Your task to perform on an android device: open app "Yahoo Mail" Image 0: 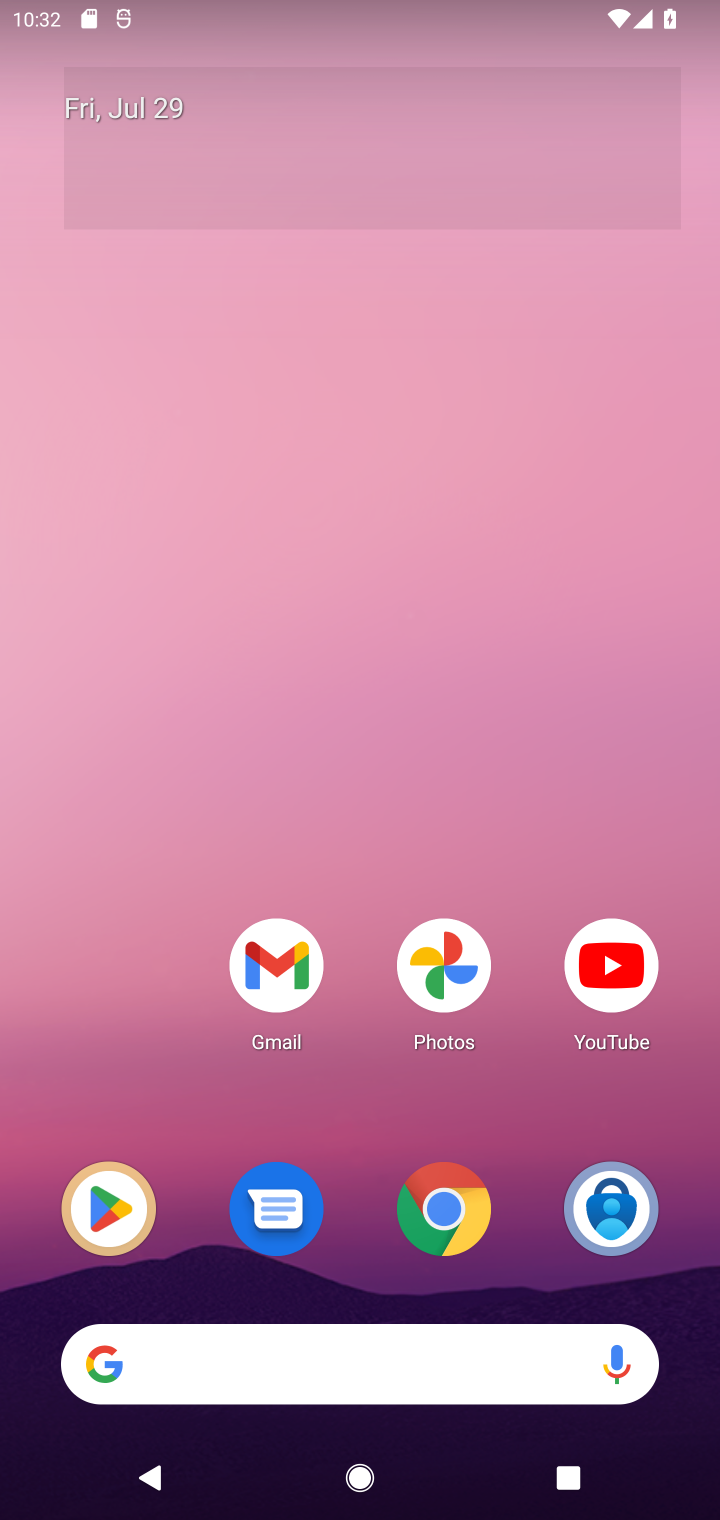
Step 0: drag from (517, 1008) to (532, 36)
Your task to perform on an android device: open app "Yahoo Mail" Image 1: 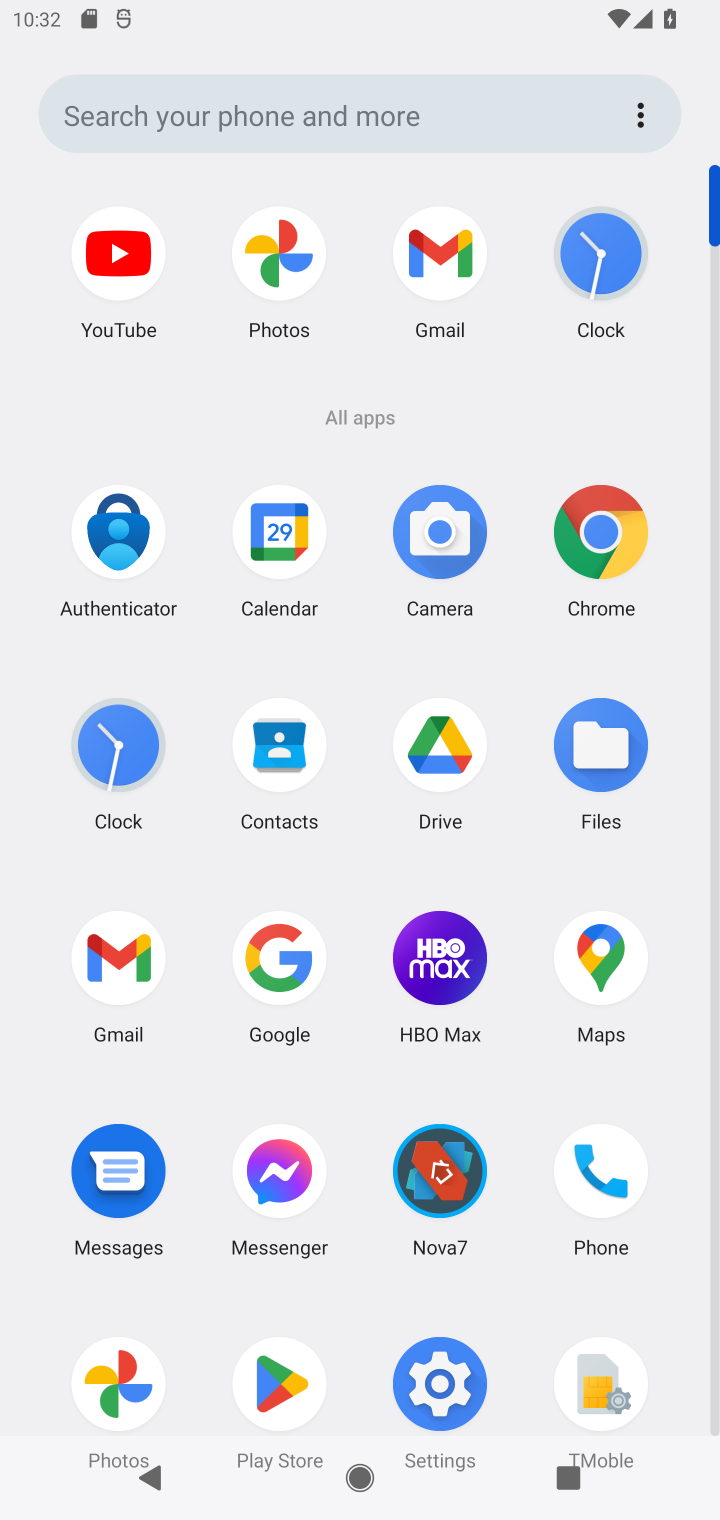
Step 1: drag from (536, 1274) to (582, 691)
Your task to perform on an android device: open app "Yahoo Mail" Image 2: 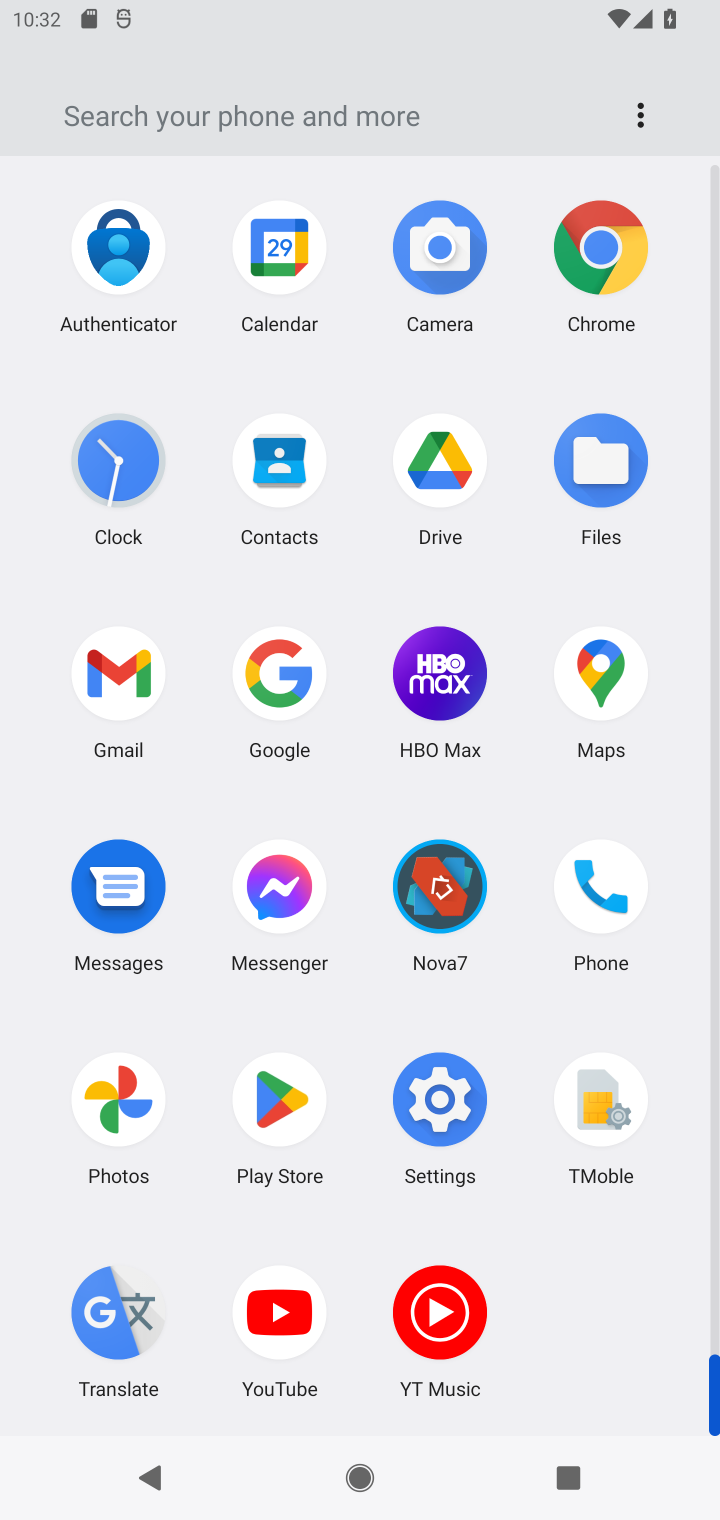
Step 2: click (264, 1095)
Your task to perform on an android device: open app "Yahoo Mail" Image 3: 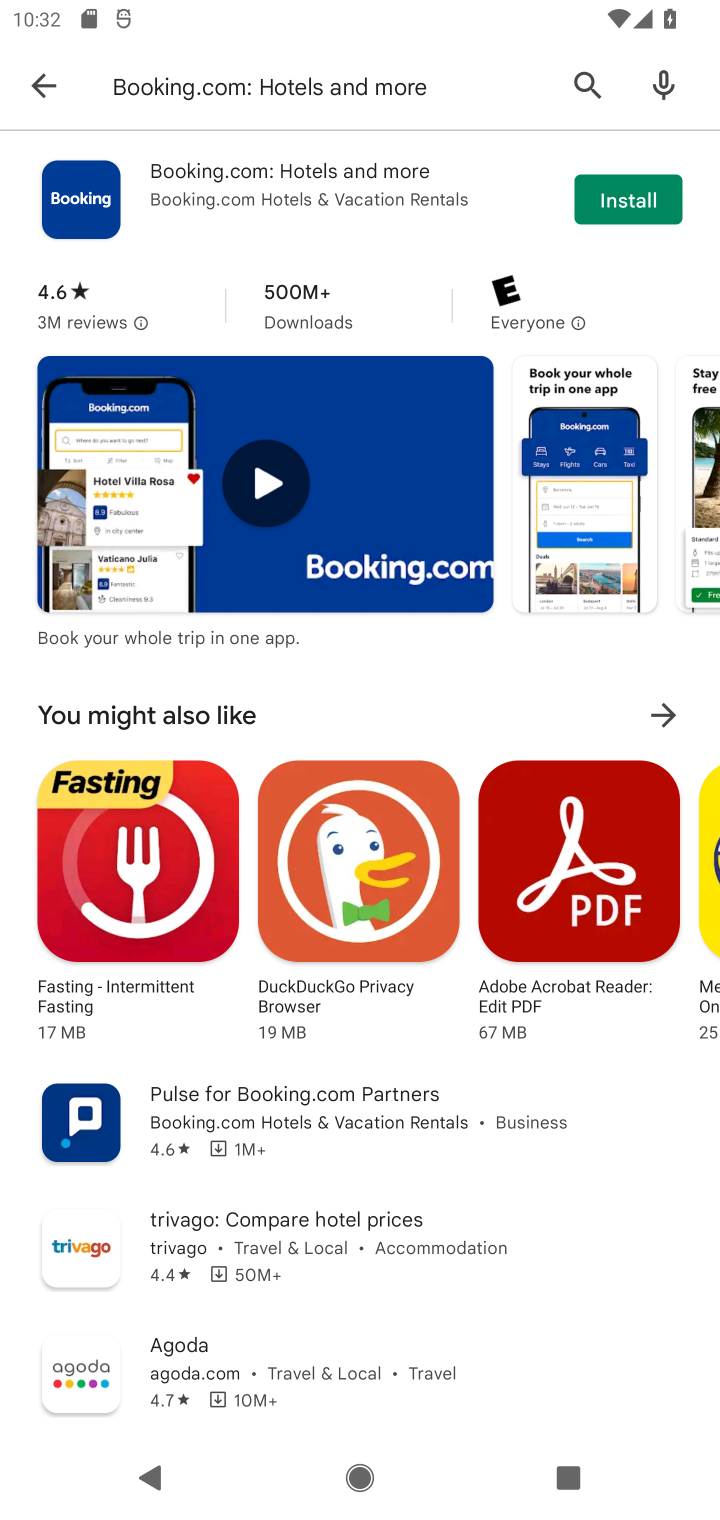
Step 3: task complete